Your task to perform on an android device: Open Chrome and go to the settings page Image 0: 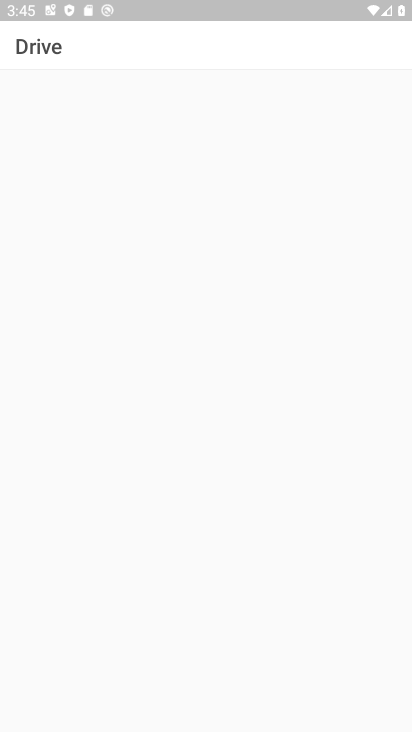
Step 0: press home button
Your task to perform on an android device: Open Chrome and go to the settings page Image 1: 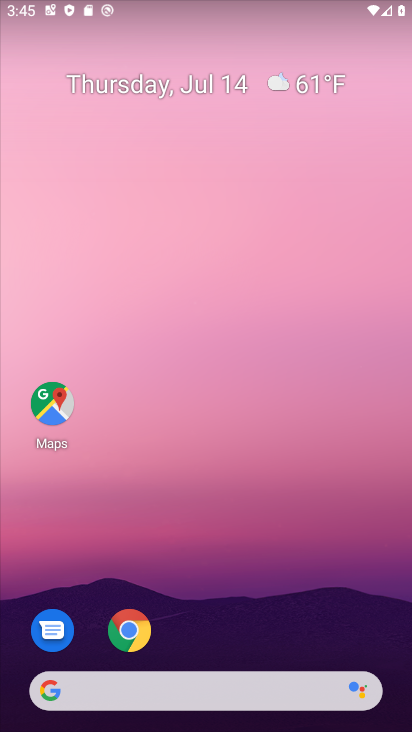
Step 1: click (141, 632)
Your task to perform on an android device: Open Chrome and go to the settings page Image 2: 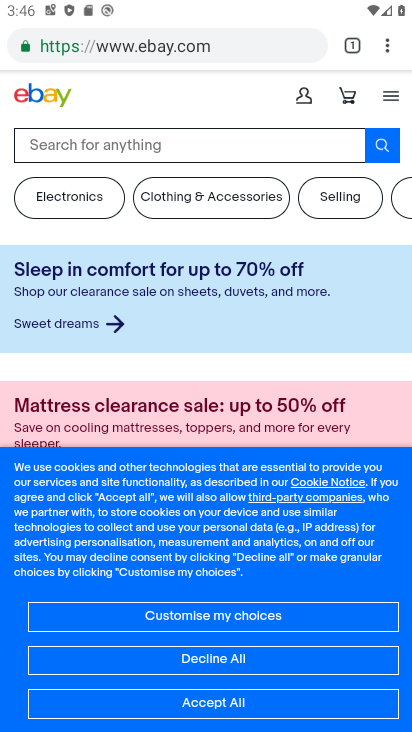
Step 2: click (393, 50)
Your task to perform on an android device: Open Chrome and go to the settings page Image 3: 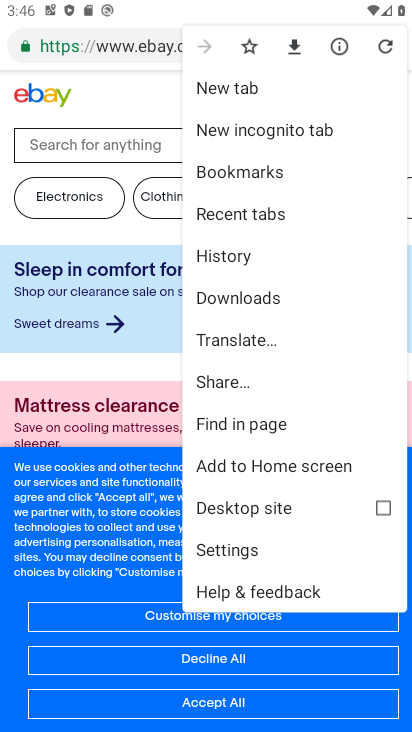
Step 3: click (238, 551)
Your task to perform on an android device: Open Chrome and go to the settings page Image 4: 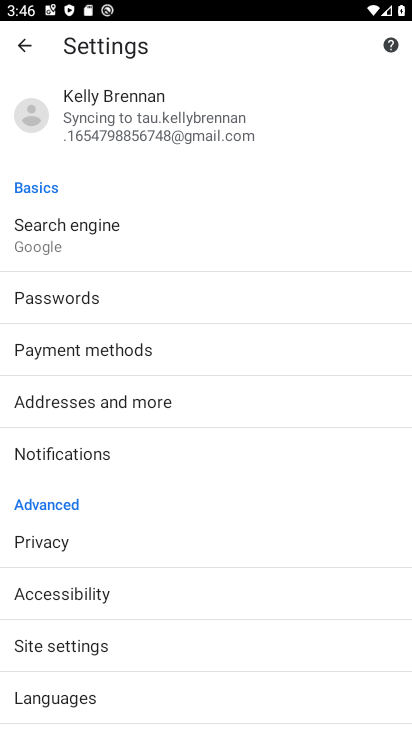
Step 4: task complete